Your task to perform on an android device: install app "Venmo" Image 0: 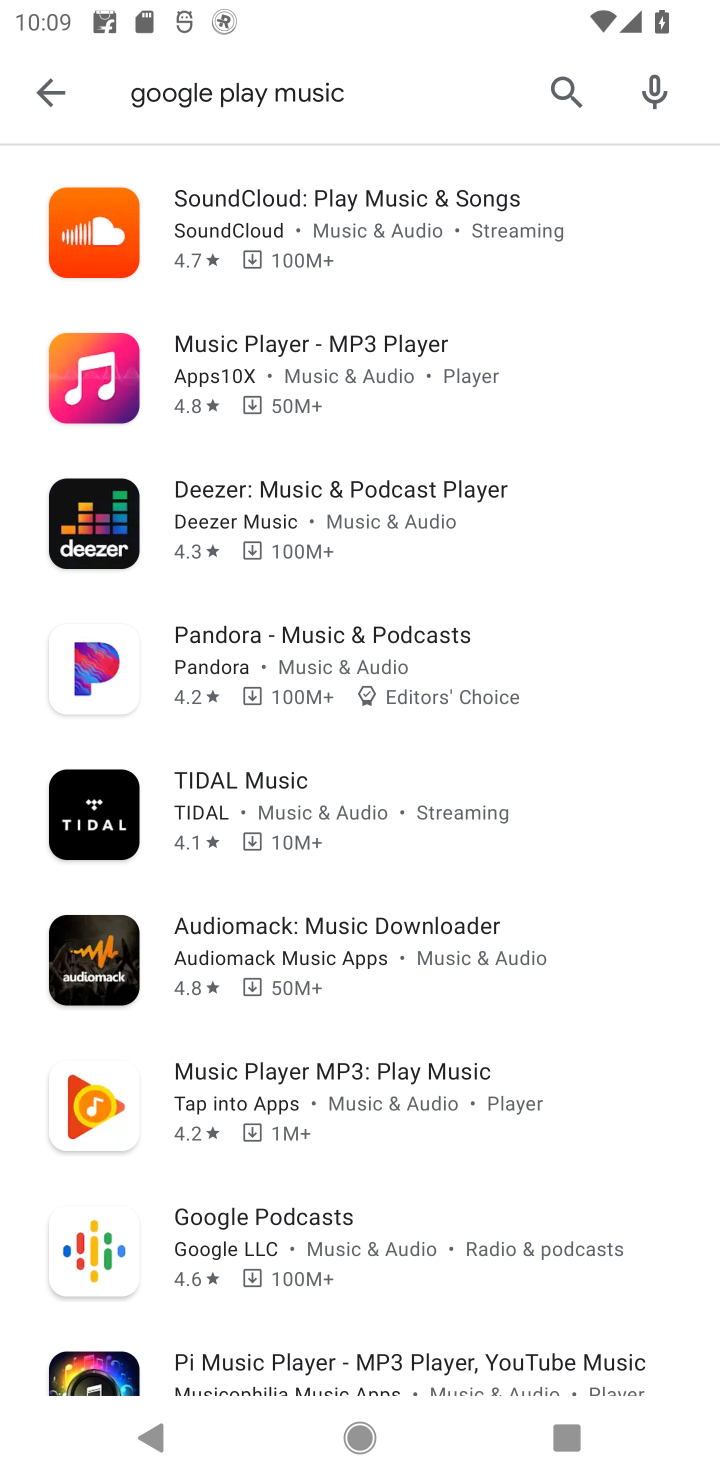
Step 0: click (565, 102)
Your task to perform on an android device: install app "Venmo" Image 1: 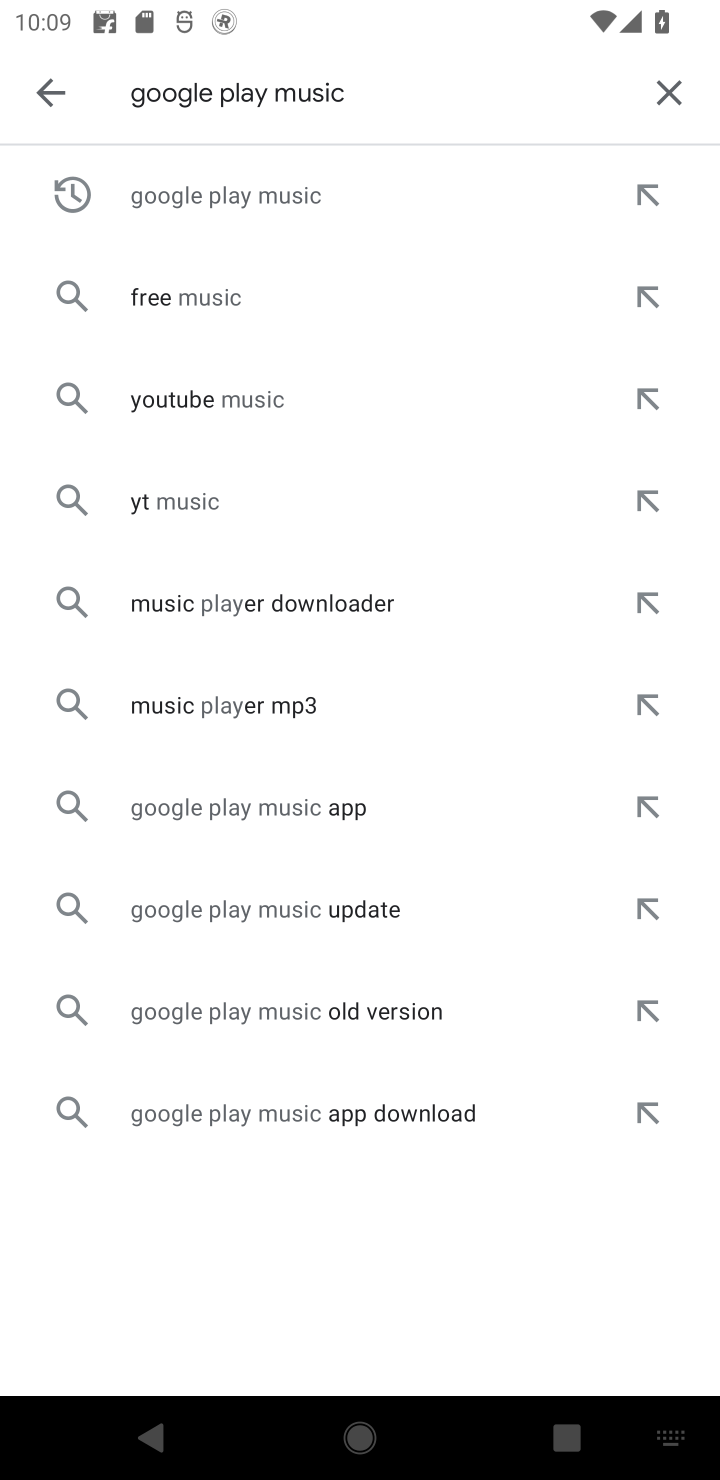
Step 1: click (680, 81)
Your task to perform on an android device: install app "Venmo" Image 2: 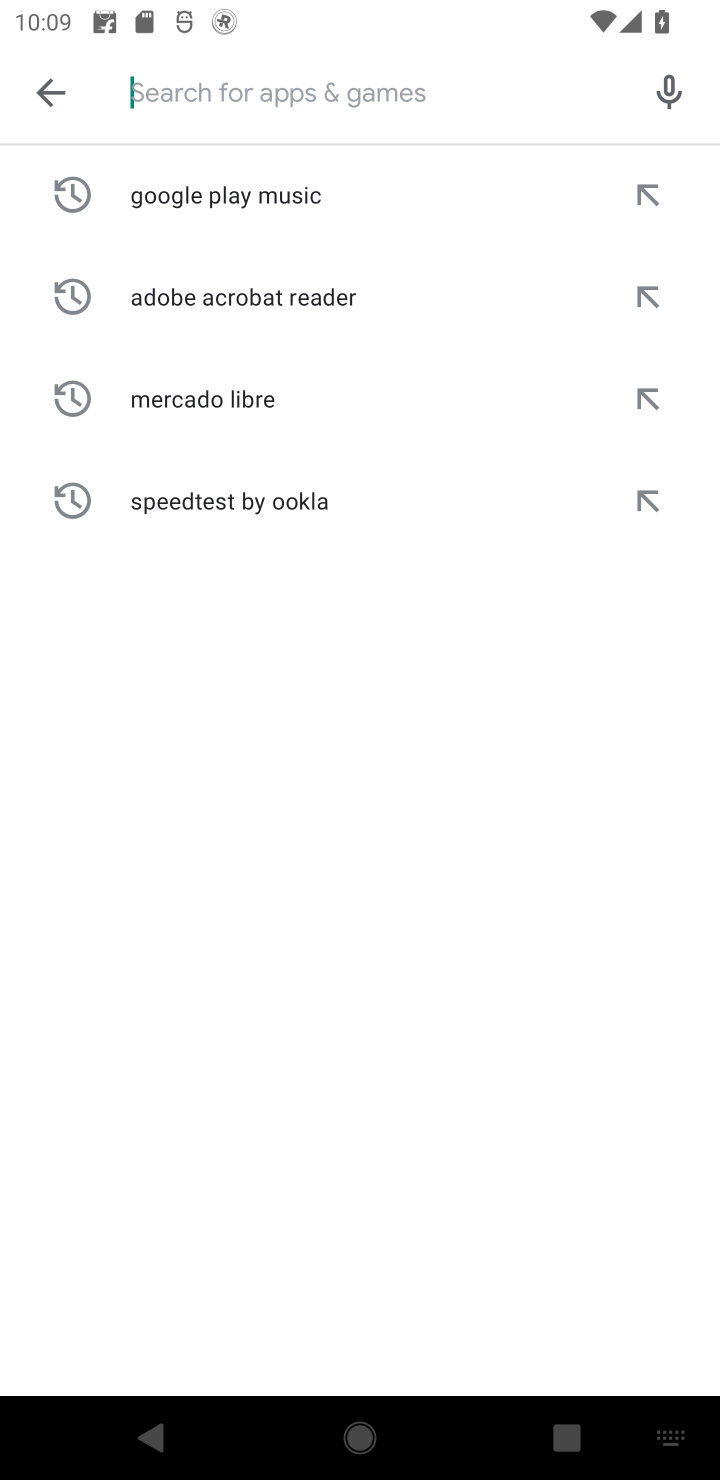
Step 2: type "Venmo"
Your task to perform on an android device: install app "Venmo" Image 3: 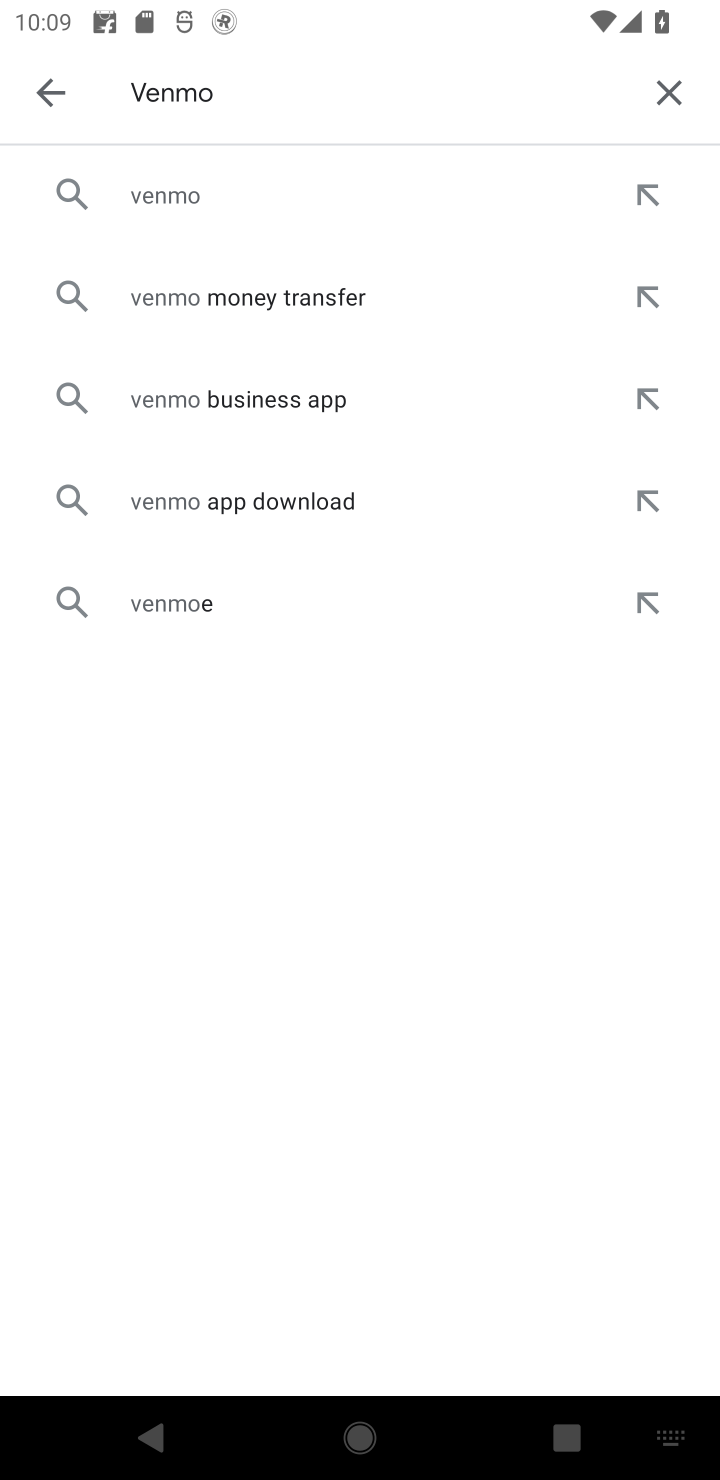
Step 3: click (245, 196)
Your task to perform on an android device: install app "Venmo" Image 4: 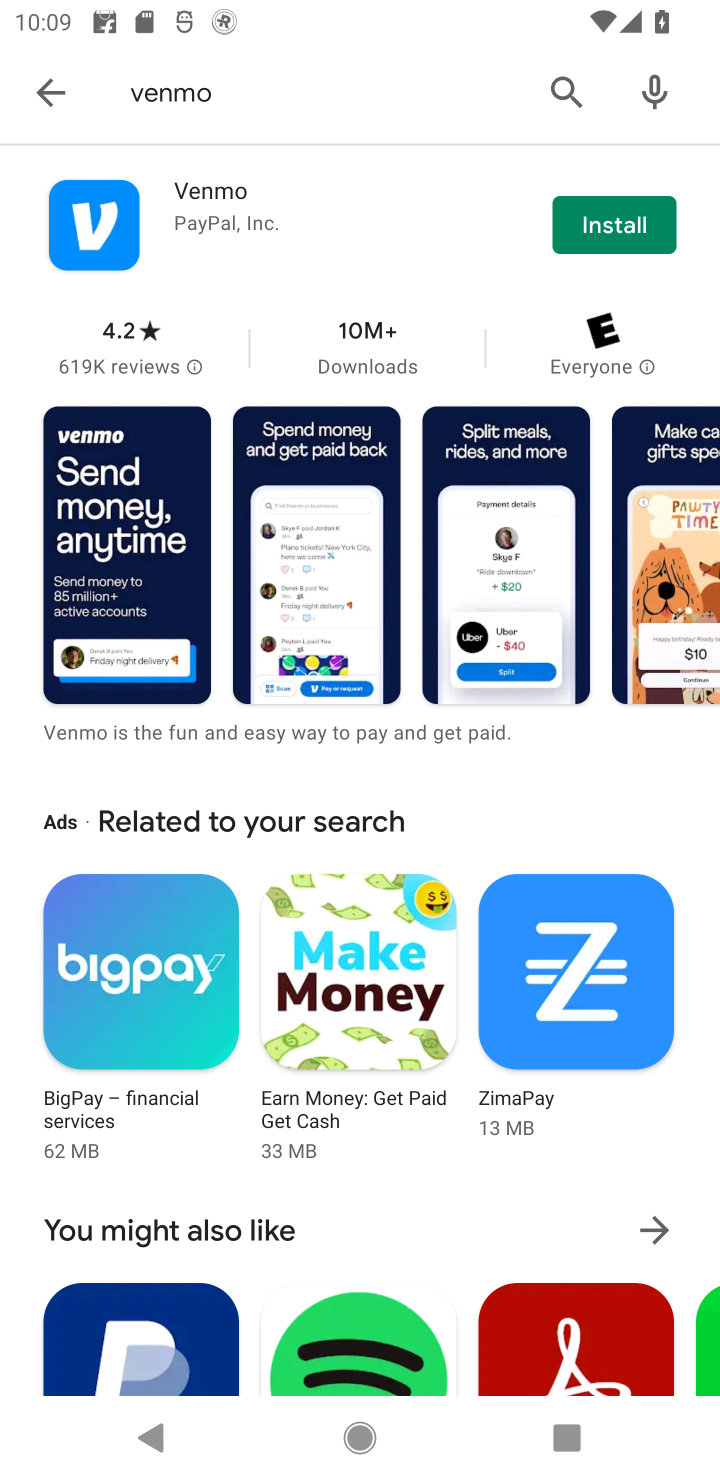
Step 4: click (591, 231)
Your task to perform on an android device: install app "Venmo" Image 5: 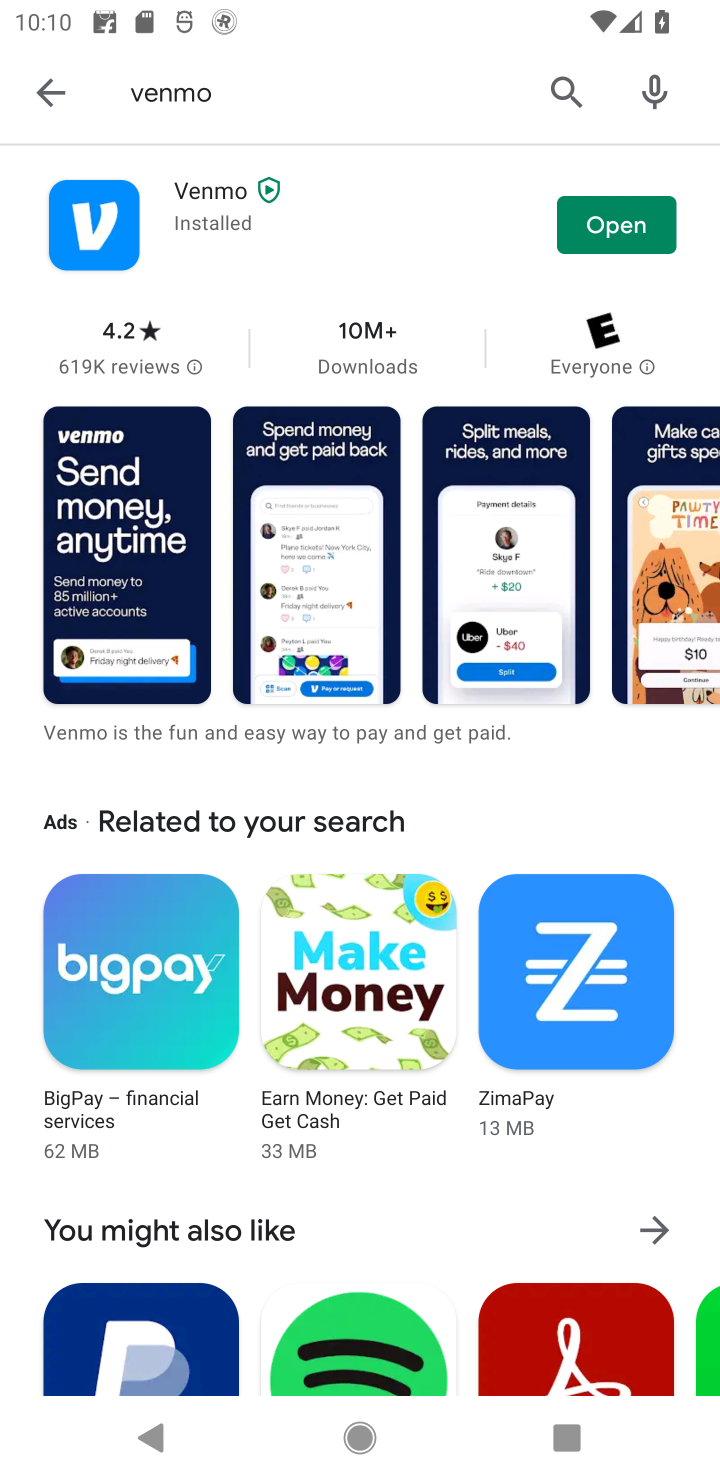
Step 5: task complete